Your task to perform on an android device: star an email in the gmail app Image 0: 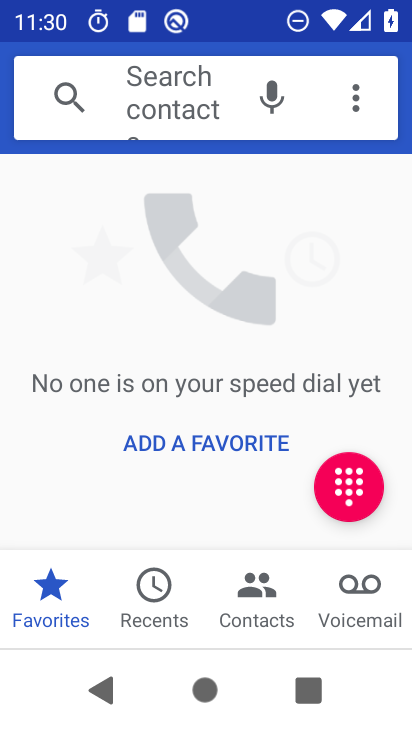
Step 0: press home button
Your task to perform on an android device: star an email in the gmail app Image 1: 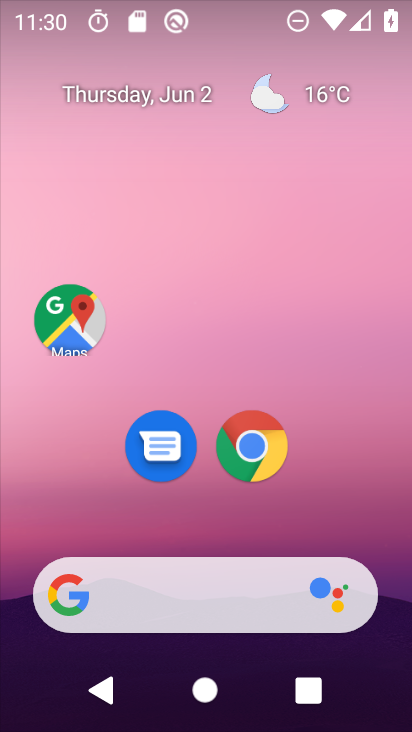
Step 1: drag from (372, 510) to (356, 198)
Your task to perform on an android device: star an email in the gmail app Image 2: 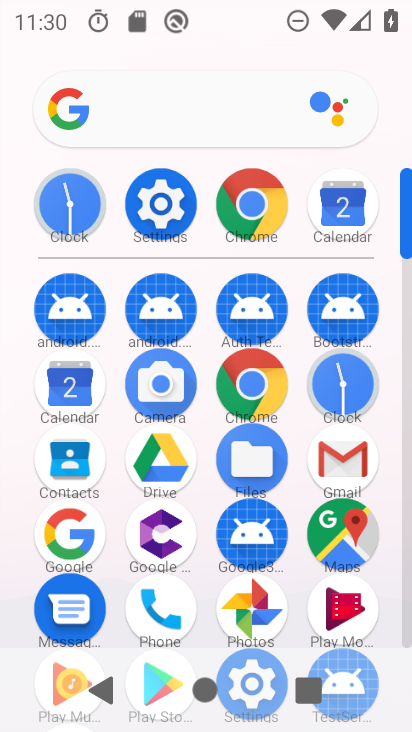
Step 2: click (359, 464)
Your task to perform on an android device: star an email in the gmail app Image 3: 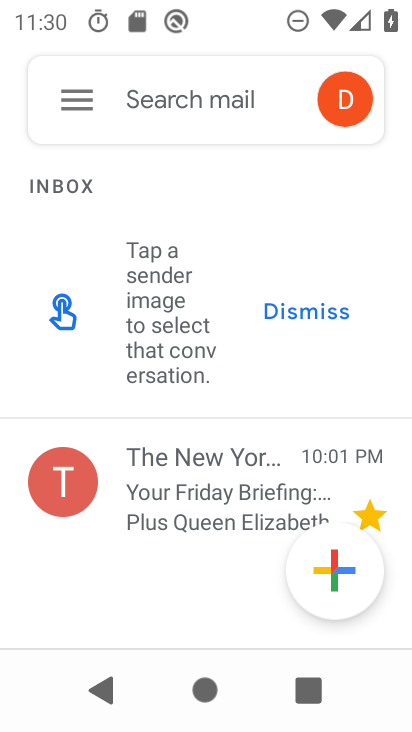
Step 3: click (280, 477)
Your task to perform on an android device: star an email in the gmail app Image 4: 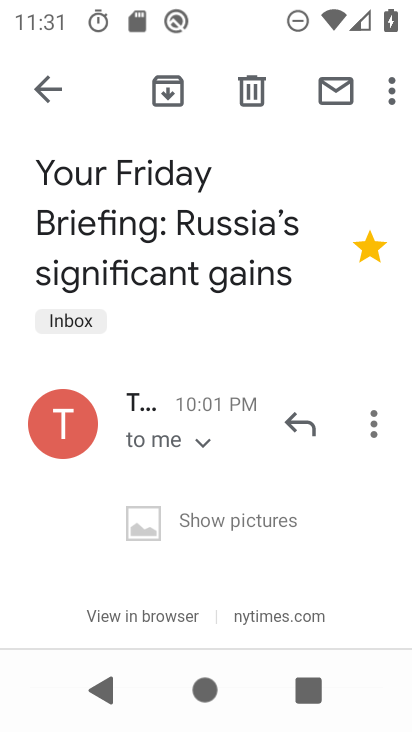
Step 4: task complete